Your task to perform on an android device: Open wifi settings Image 0: 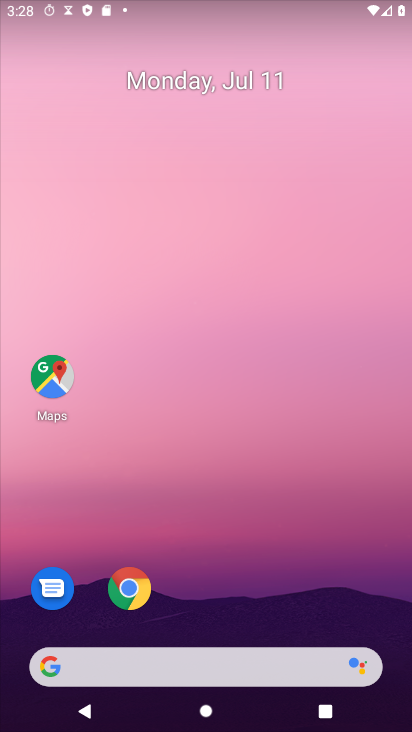
Step 0: drag from (246, 585) to (240, 42)
Your task to perform on an android device: Open wifi settings Image 1: 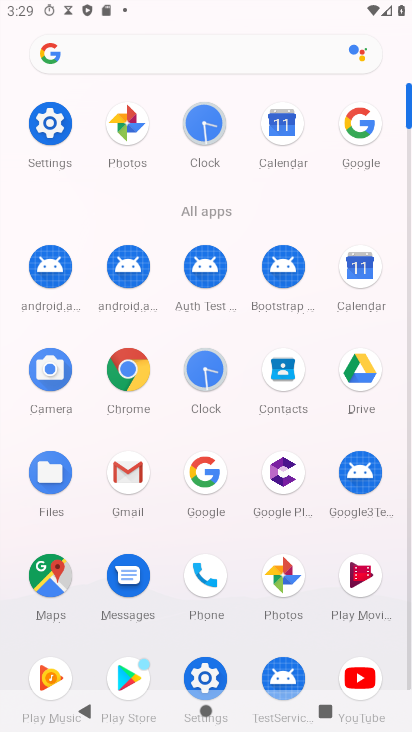
Step 1: click (37, 122)
Your task to perform on an android device: Open wifi settings Image 2: 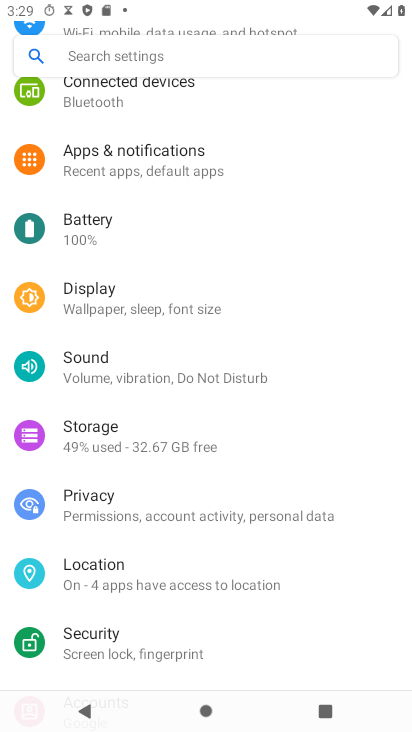
Step 2: drag from (115, 126) to (204, 611)
Your task to perform on an android device: Open wifi settings Image 3: 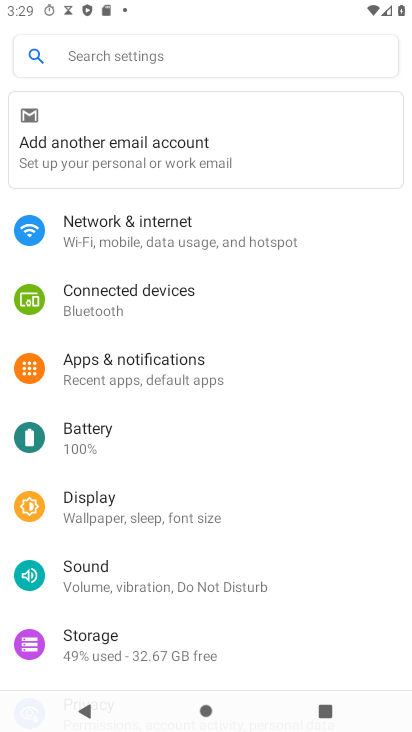
Step 3: click (208, 222)
Your task to perform on an android device: Open wifi settings Image 4: 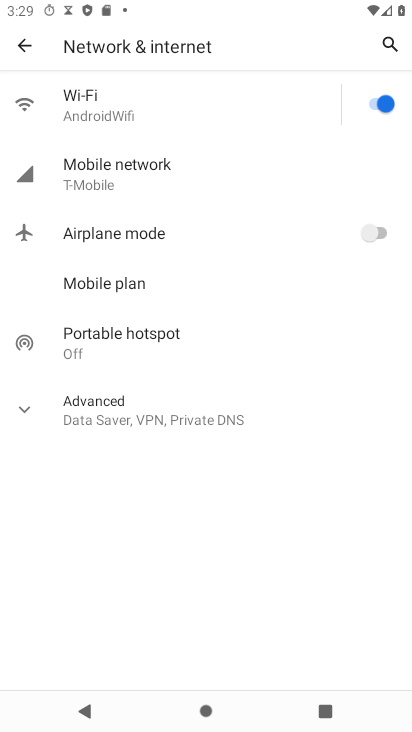
Step 4: click (195, 97)
Your task to perform on an android device: Open wifi settings Image 5: 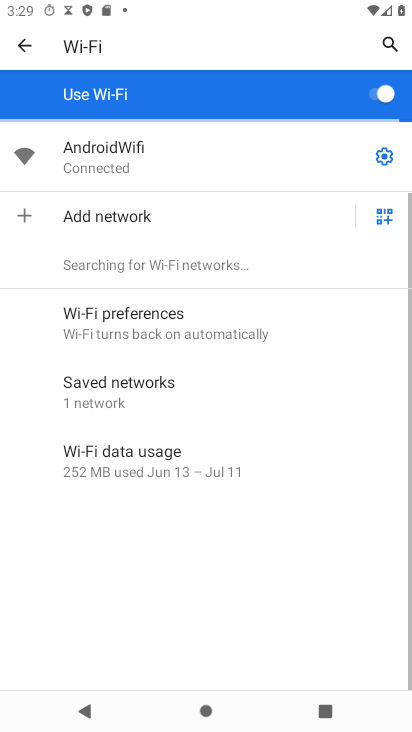
Step 5: task complete